Your task to perform on an android device: open app "Duolingo: language lessons" Image 0: 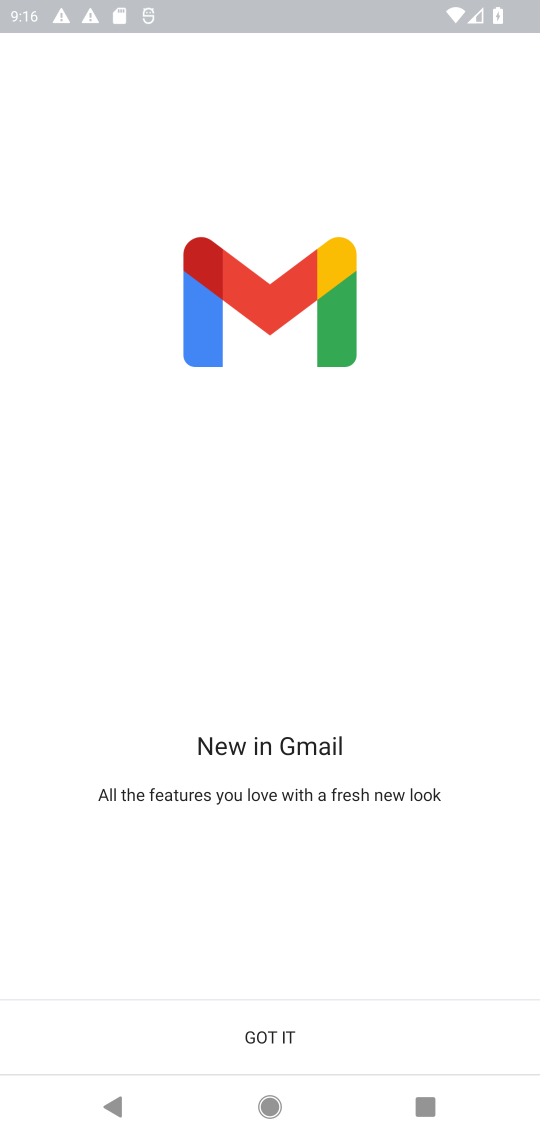
Step 0: press home button
Your task to perform on an android device: open app "Duolingo: language lessons" Image 1: 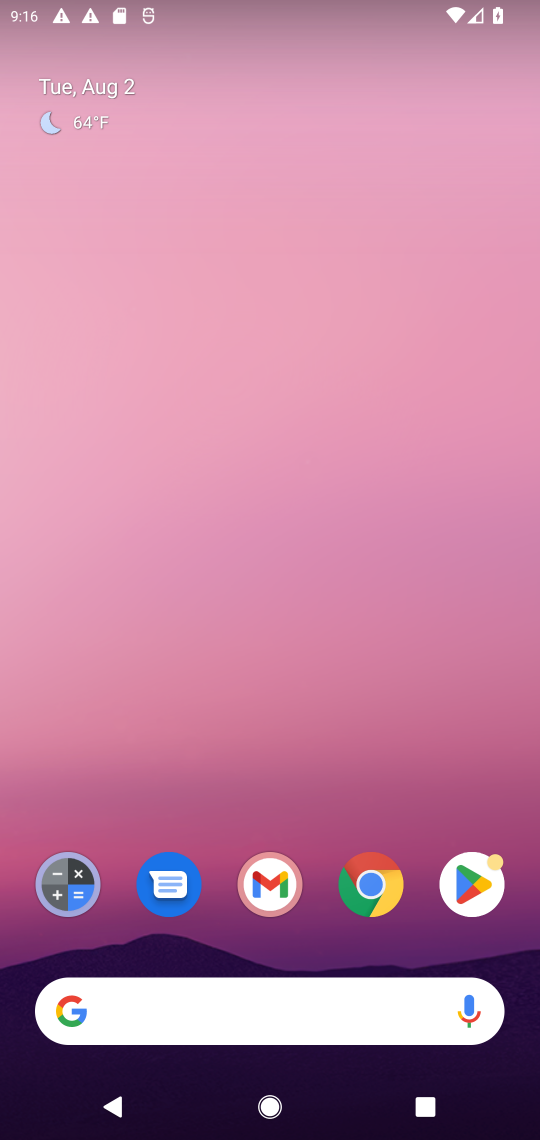
Step 1: click (450, 876)
Your task to perform on an android device: open app "Duolingo: language lessons" Image 2: 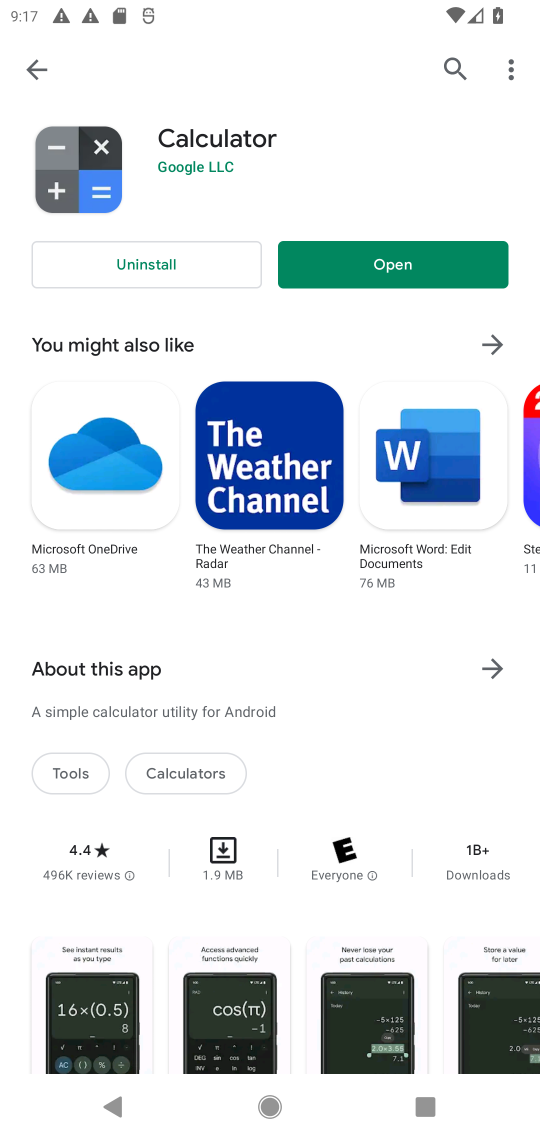
Step 2: click (449, 50)
Your task to perform on an android device: open app "Duolingo: language lessons" Image 3: 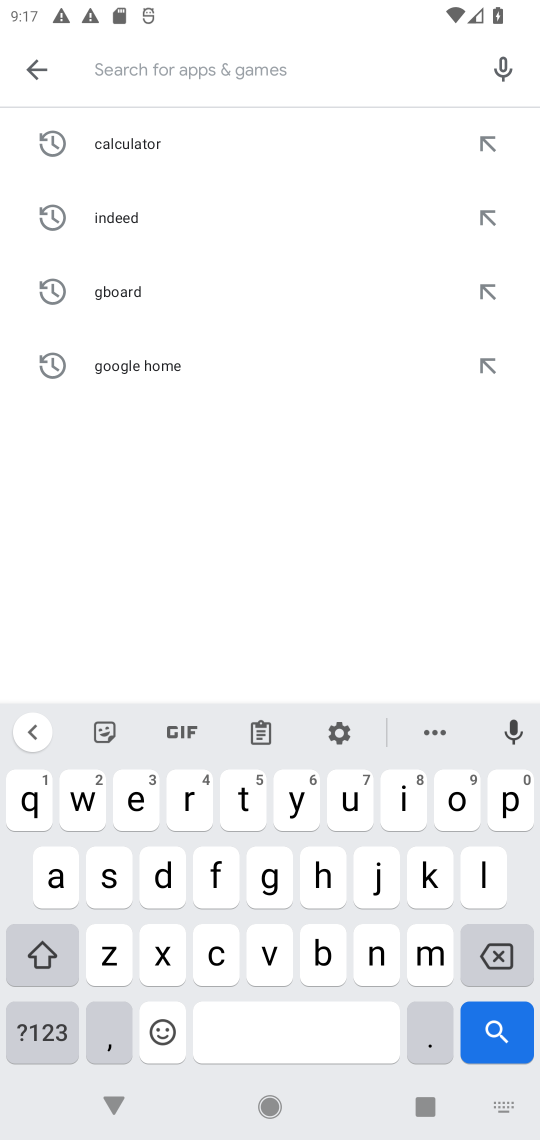
Step 3: click (164, 878)
Your task to perform on an android device: open app "Duolingo: language lessons" Image 4: 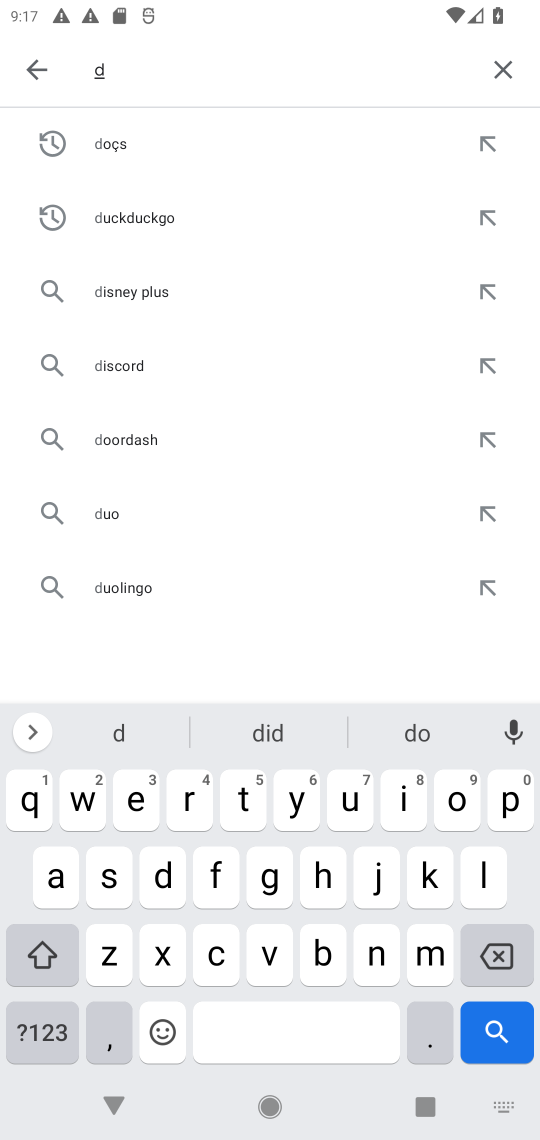
Step 4: click (344, 794)
Your task to perform on an android device: open app "Duolingo: language lessons" Image 5: 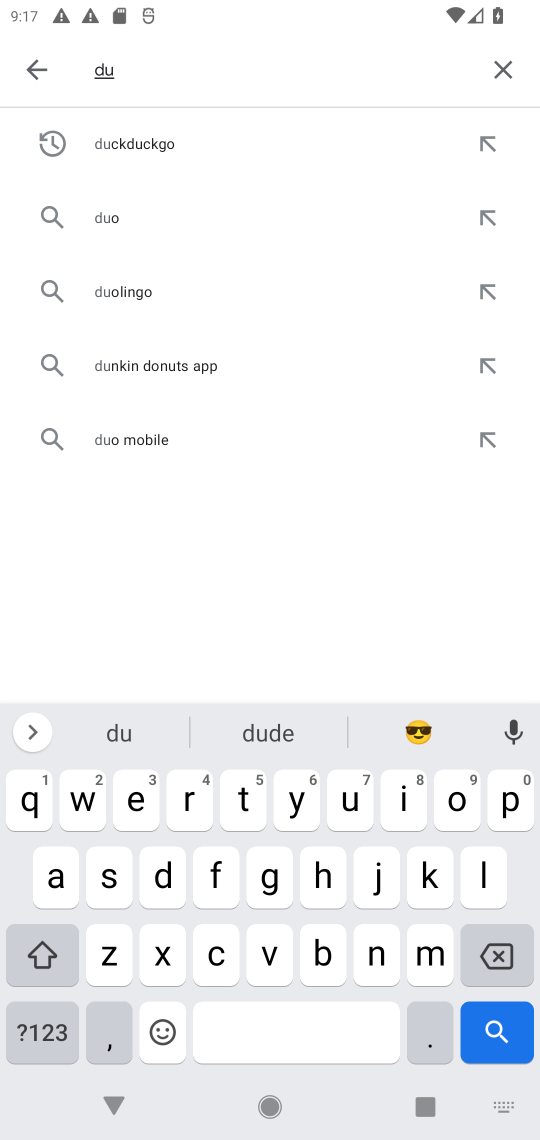
Step 5: click (455, 801)
Your task to perform on an android device: open app "Duolingo: language lessons" Image 6: 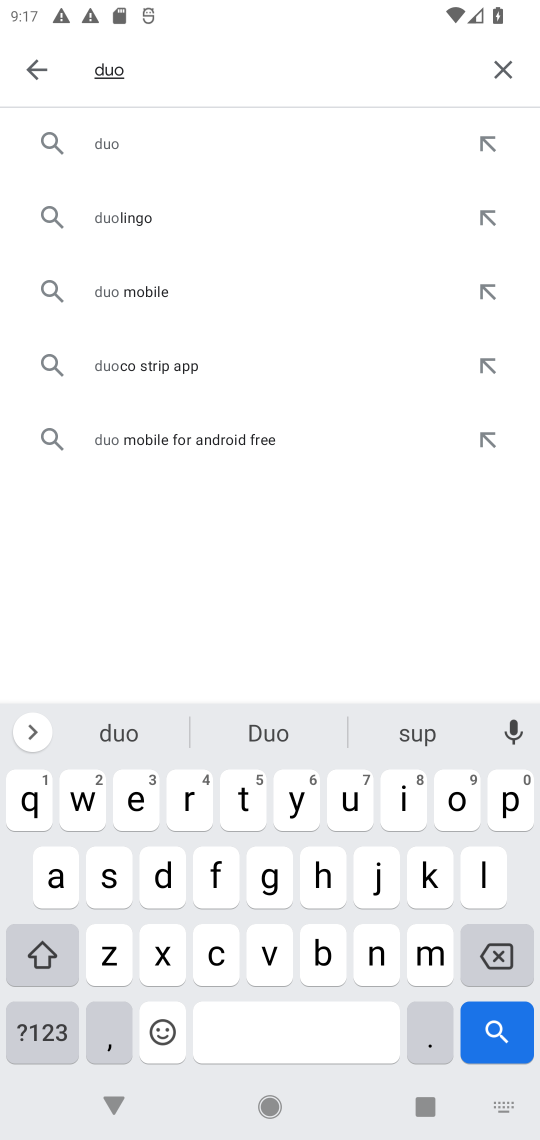
Step 6: click (139, 225)
Your task to perform on an android device: open app "Duolingo: language lessons" Image 7: 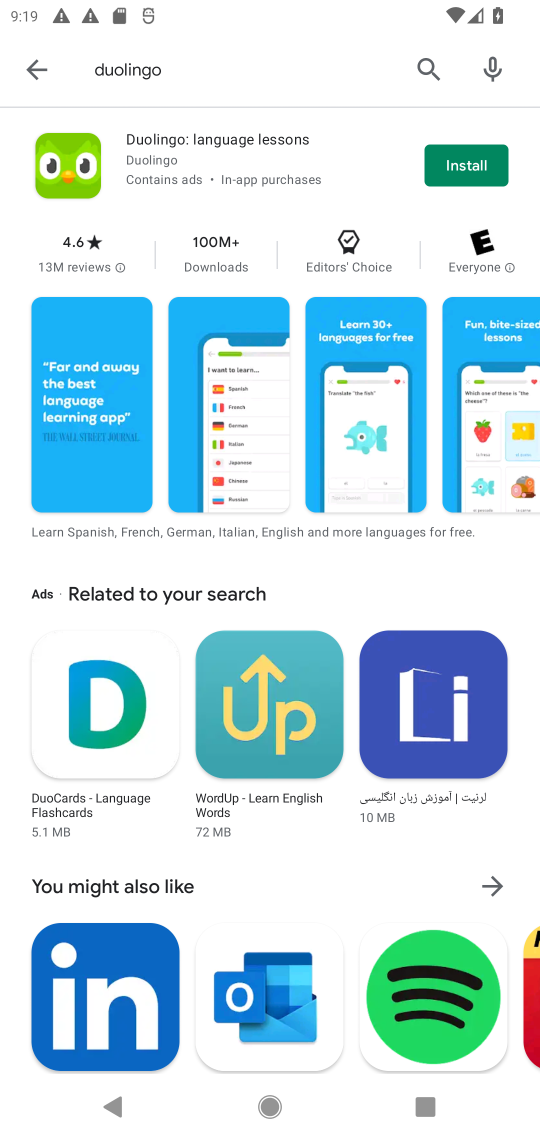
Step 7: task complete